Your task to perform on an android device: Search for pizza restaurants on Maps Image 0: 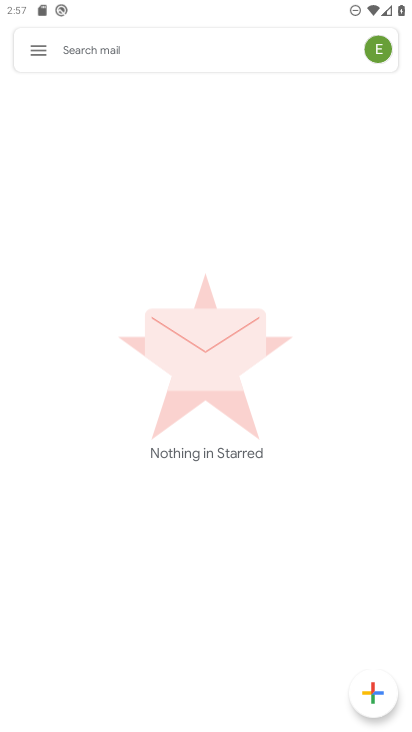
Step 0: press home button
Your task to perform on an android device: Search for pizza restaurants on Maps Image 1: 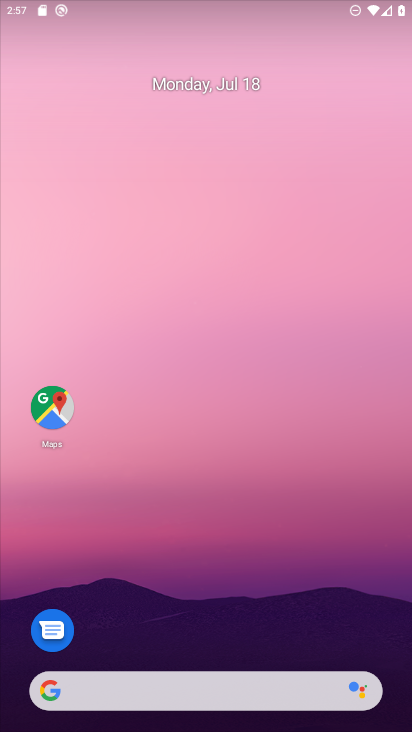
Step 1: drag from (197, 695) to (270, 92)
Your task to perform on an android device: Search for pizza restaurants on Maps Image 2: 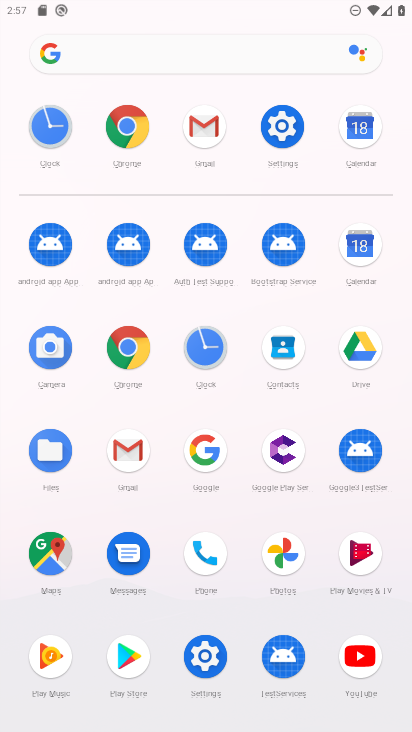
Step 2: click (48, 562)
Your task to perform on an android device: Search for pizza restaurants on Maps Image 3: 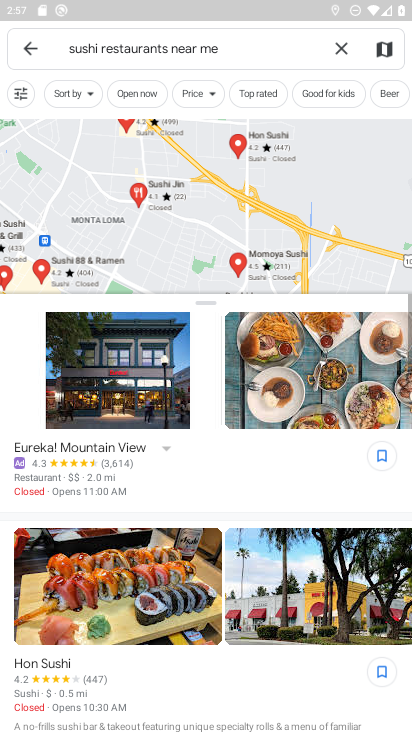
Step 3: click (332, 44)
Your task to perform on an android device: Search for pizza restaurants on Maps Image 4: 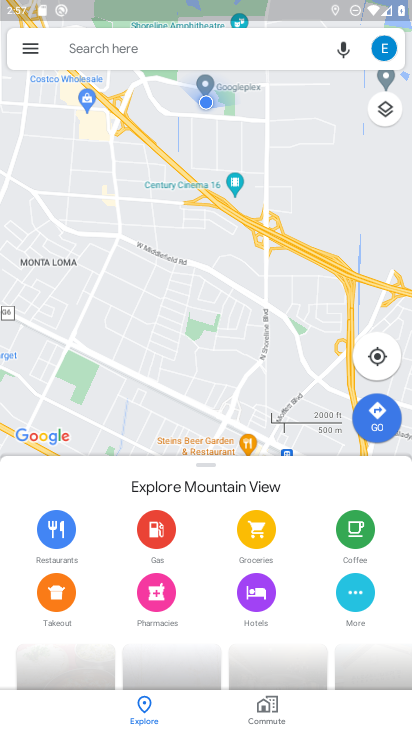
Step 4: click (167, 65)
Your task to perform on an android device: Search for pizza restaurants on Maps Image 5: 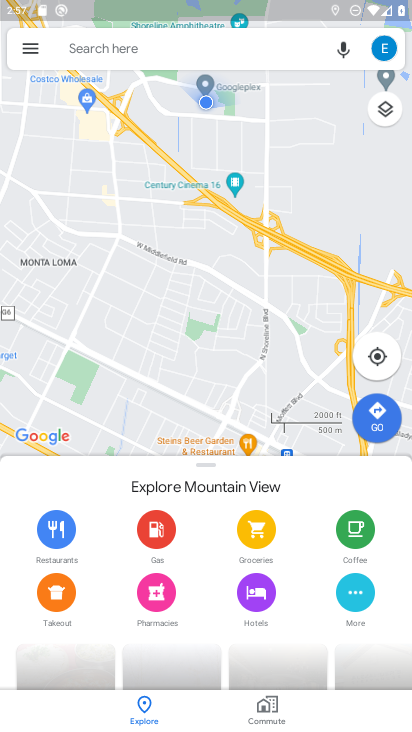
Step 5: click (167, 64)
Your task to perform on an android device: Search for pizza restaurants on Maps Image 6: 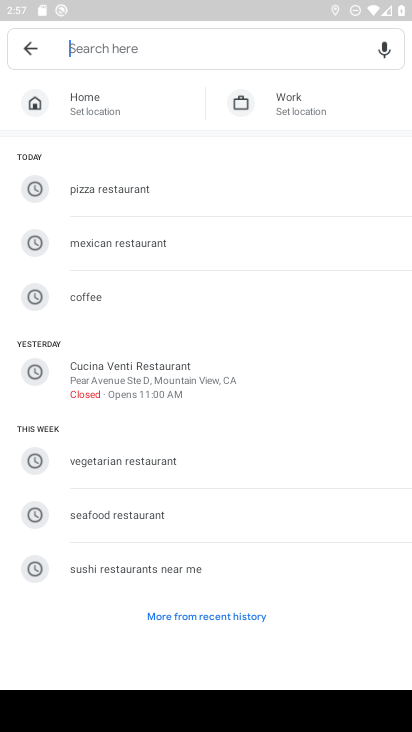
Step 6: click (169, 198)
Your task to perform on an android device: Search for pizza restaurants on Maps Image 7: 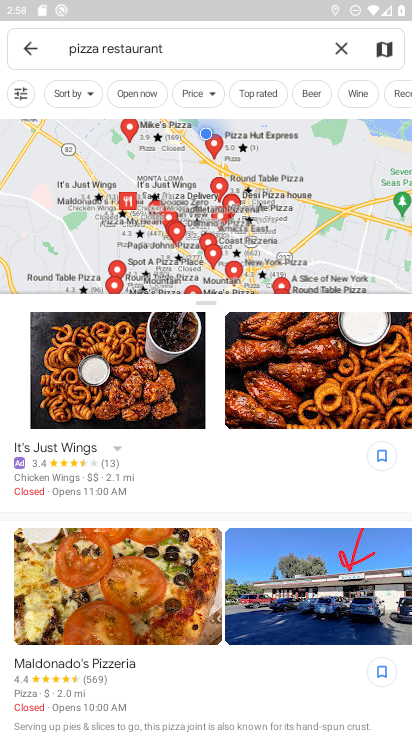
Step 7: task complete